Your task to perform on an android device: Open the Play Movies app and select the watchlist tab. Image 0: 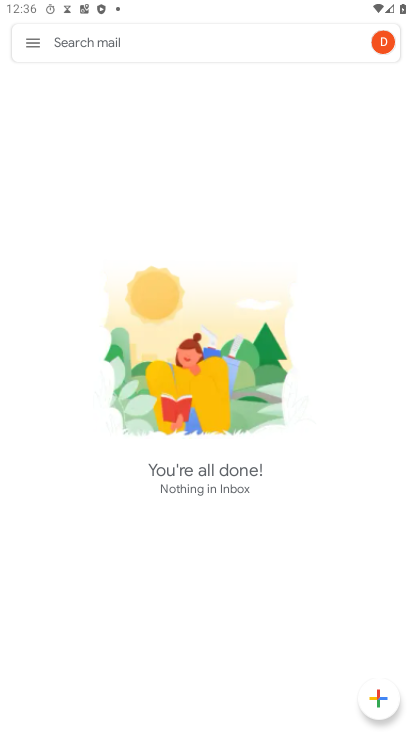
Step 0: press home button
Your task to perform on an android device: Open the Play Movies app and select the watchlist tab. Image 1: 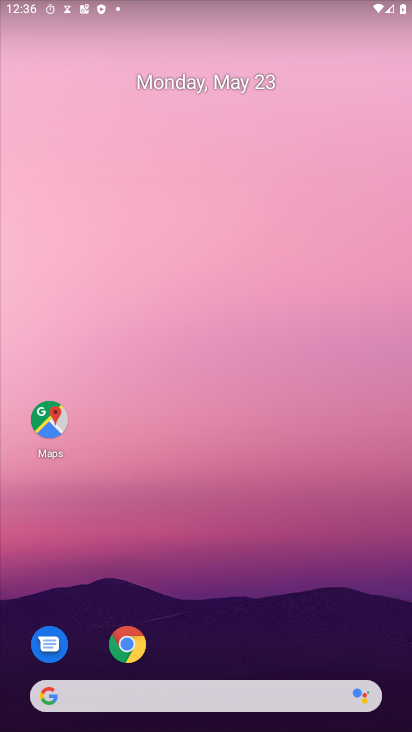
Step 1: drag from (251, 645) to (325, 61)
Your task to perform on an android device: Open the Play Movies app and select the watchlist tab. Image 2: 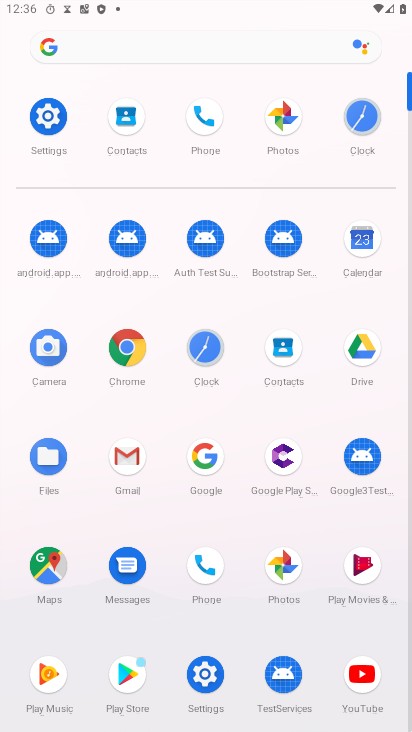
Step 2: click (364, 561)
Your task to perform on an android device: Open the Play Movies app and select the watchlist tab. Image 3: 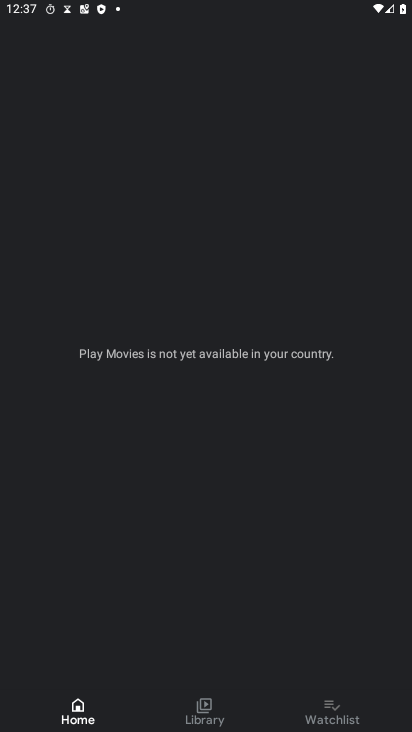
Step 3: click (326, 708)
Your task to perform on an android device: Open the Play Movies app and select the watchlist tab. Image 4: 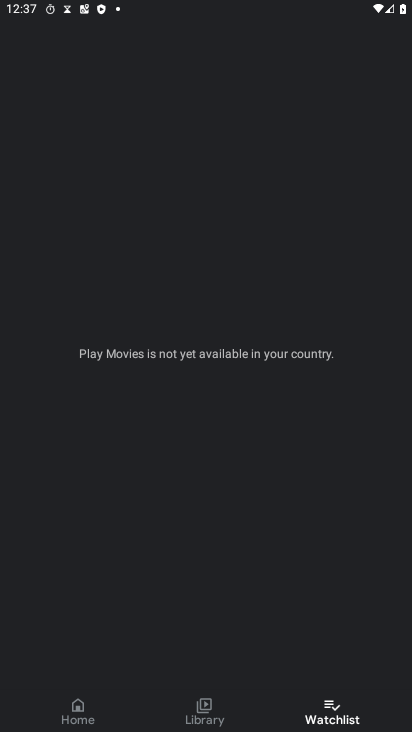
Step 4: task complete